Your task to perform on an android device: toggle wifi Image 0: 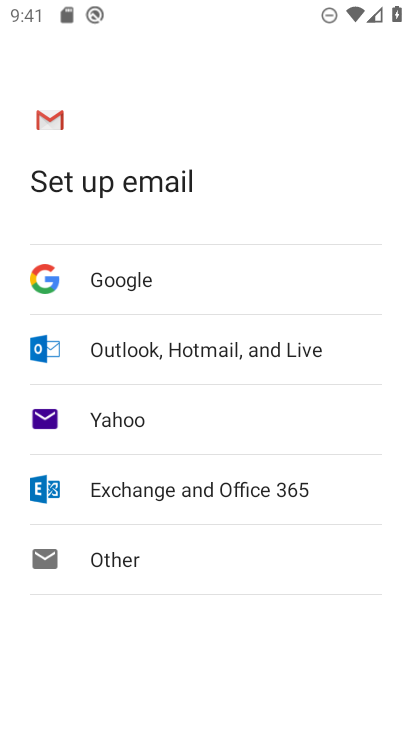
Step 0: press back button
Your task to perform on an android device: toggle wifi Image 1: 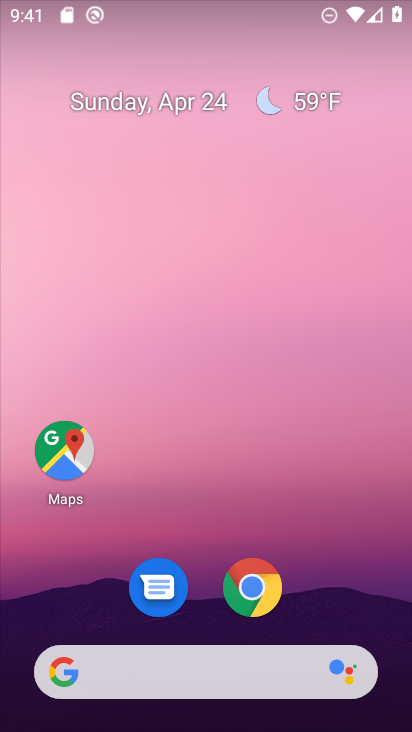
Step 1: drag from (213, 472) to (265, 114)
Your task to perform on an android device: toggle wifi Image 2: 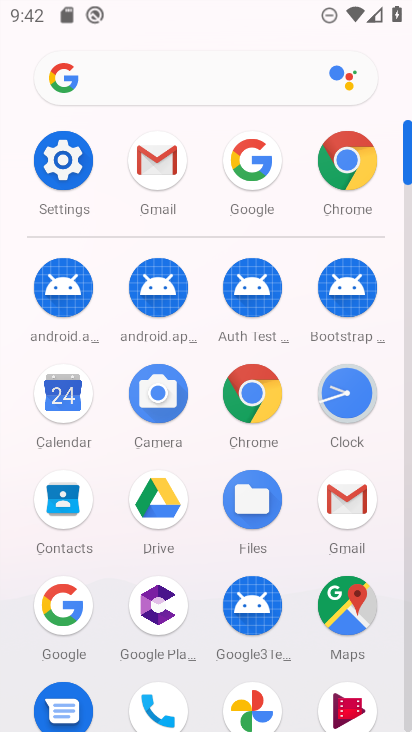
Step 2: click (65, 160)
Your task to perform on an android device: toggle wifi Image 3: 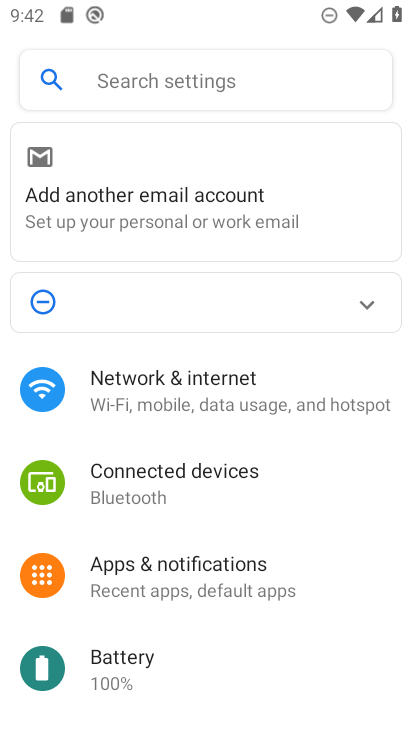
Step 3: click (176, 385)
Your task to perform on an android device: toggle wifi Image 4: 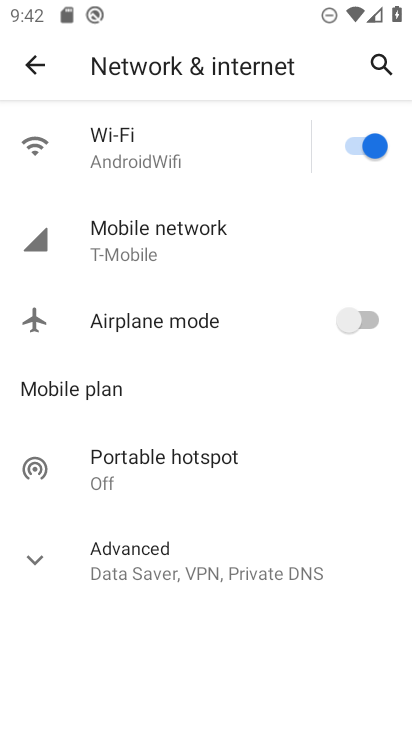
Step 4: click (366, 149)
Your task to perform on an android device: toggle wifi Image 5: 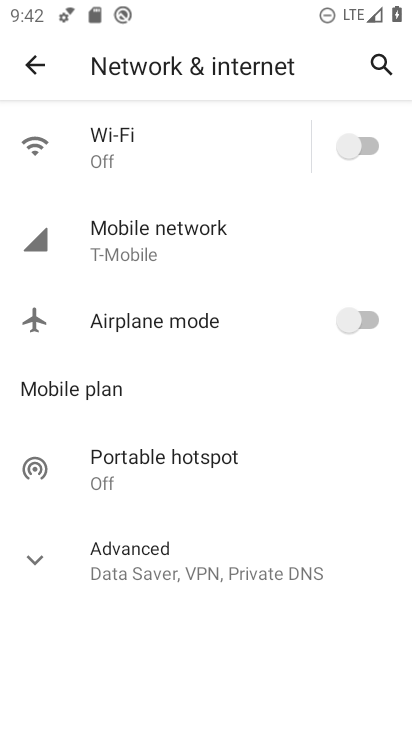
Step 5: task complete